Your task to perform on an android device: turn off sleep mode Image 0: 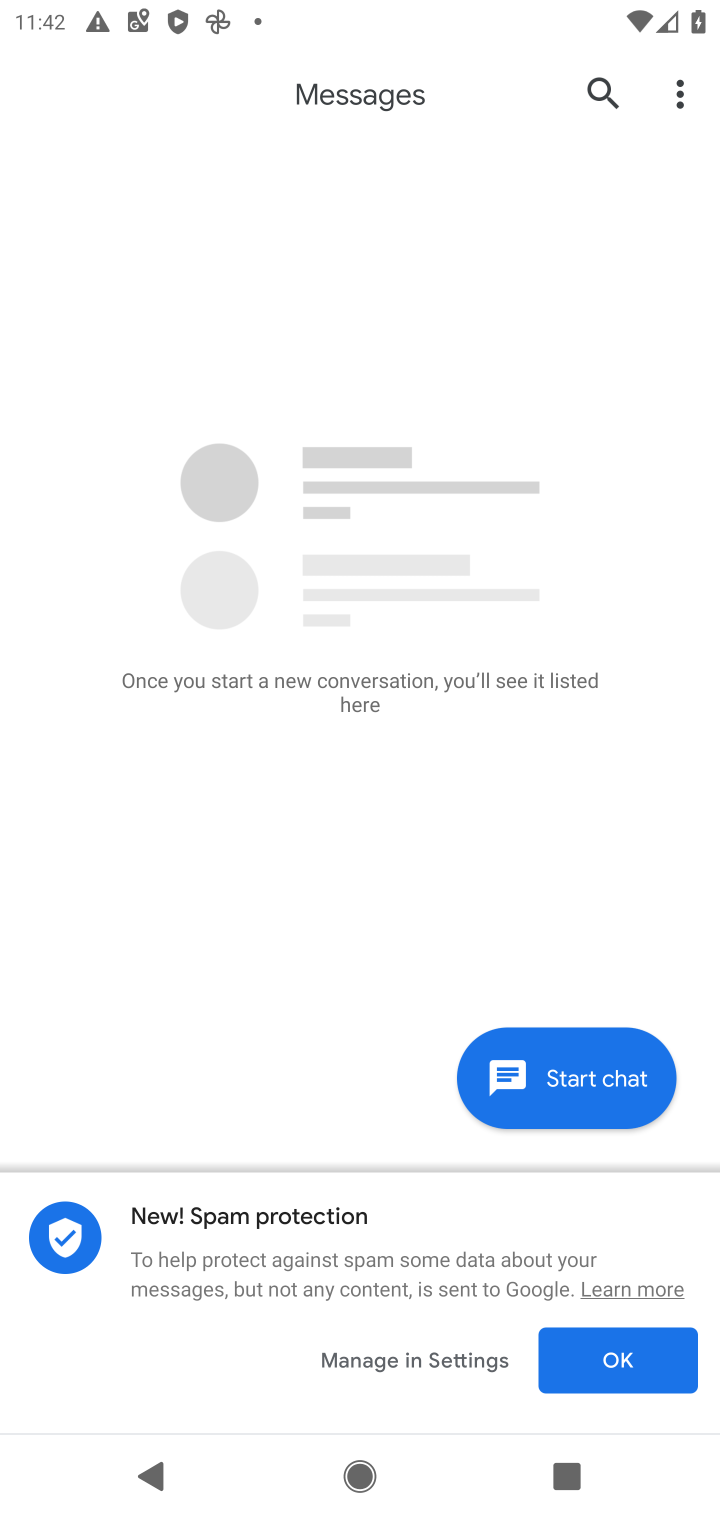
Step 0: press home button
Your task to perform on an android device: turn off sleep mode Image 1: 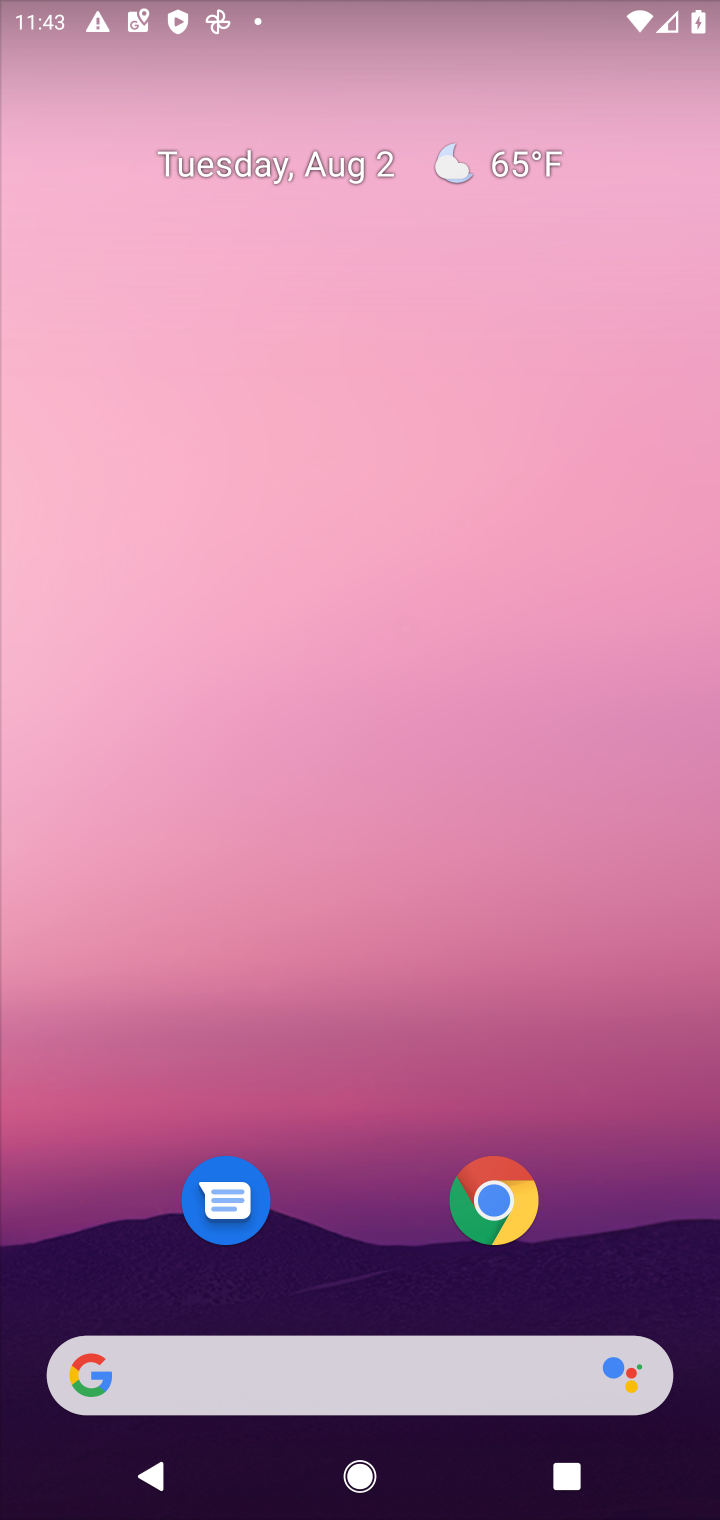
Step 1: drag from (679, 1217) to (584, 269)
Your task to perform on an android device: turn off sleep mode Image 2: 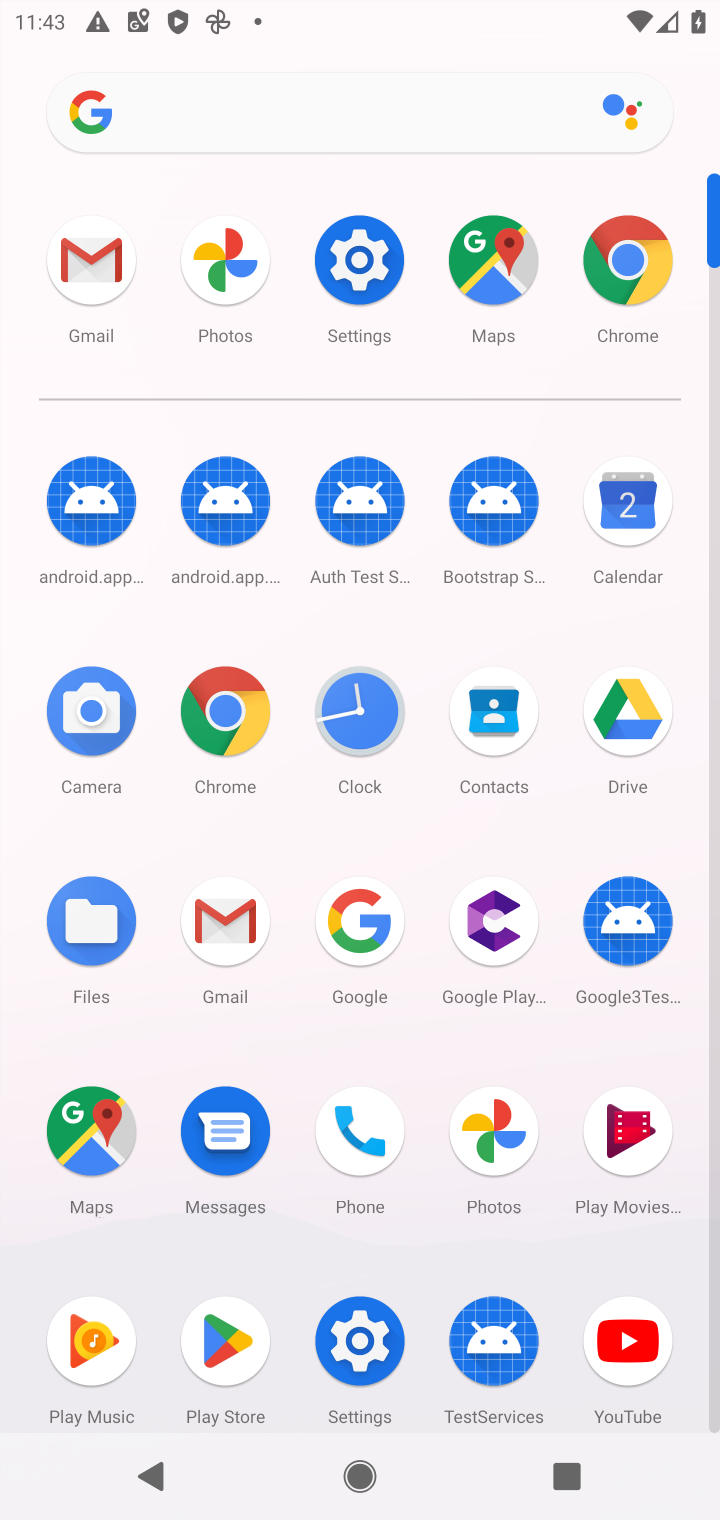
Step 2: click (361, 1343)
Your task to perform on an android device: turn off sleep mode Image 3: 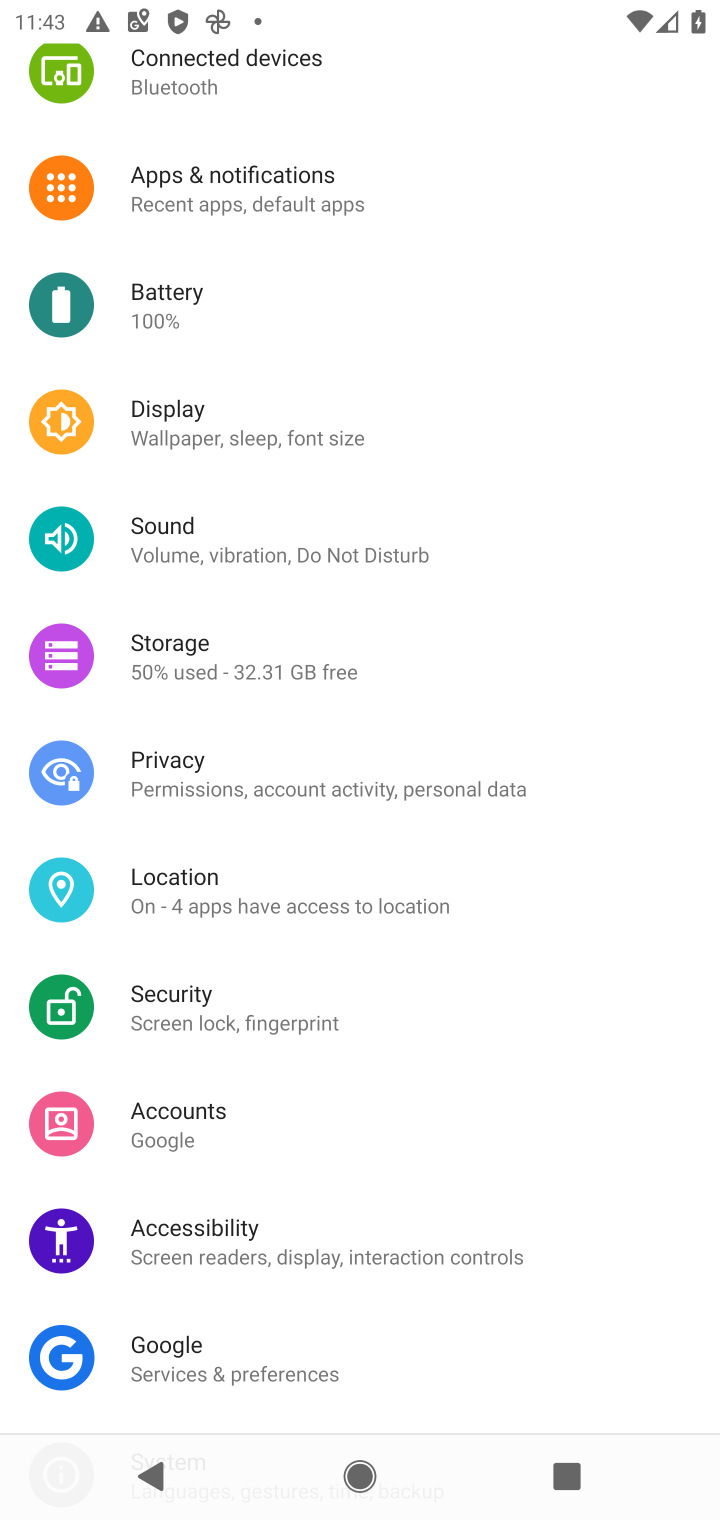
Step 3: click (180, 419)
Your task to perform on an android device: turn off sleep mode Image 4: 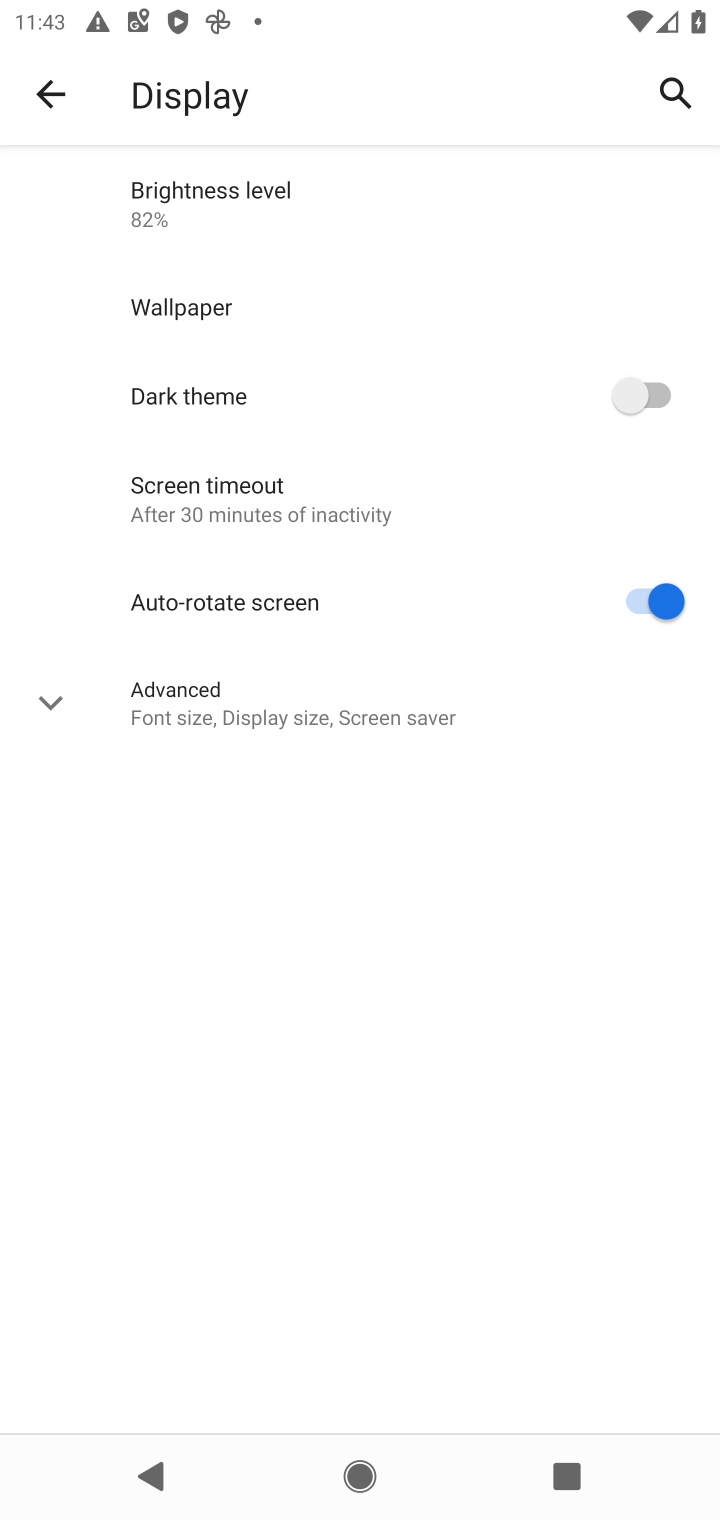
Step 4: click (45, 704)
Your task to perform on an android device: turn off sleep mode Image 5: 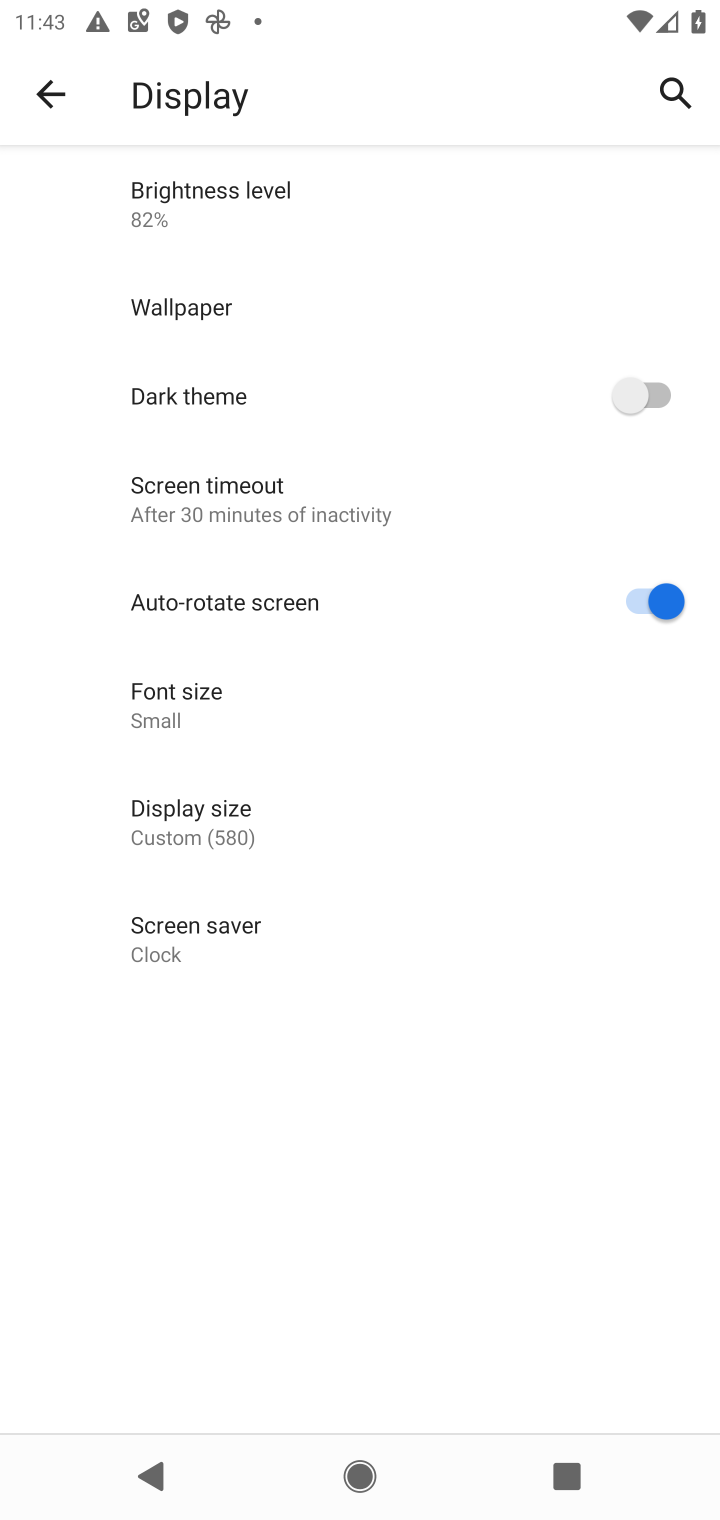
Step 5: task complete